Your task to perform on an android device: turn off wifi Image 0: 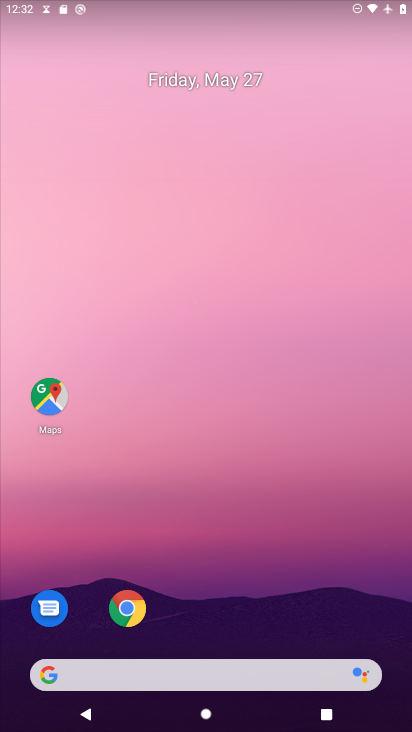
Step 0: press home button
Your task to perform on an android device: turn off wifi Image 1: 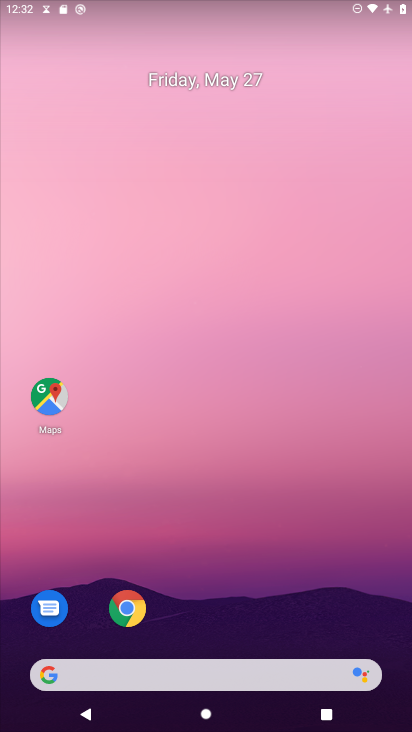
Step 1: drag from (164, 557) to (265, 263)
Your task to perform on an android device: turn off wifi Image 2: 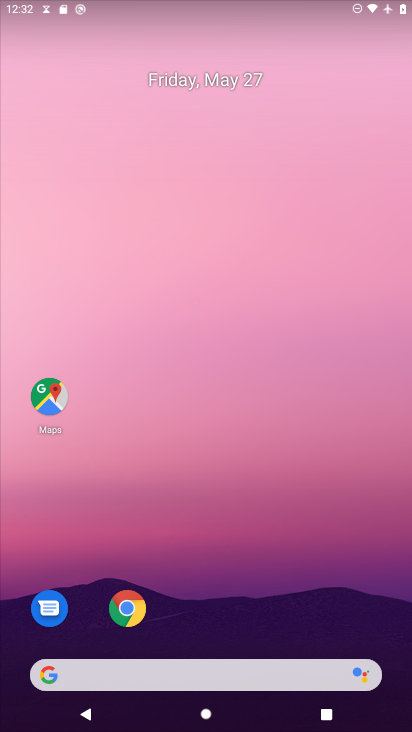
Step 2: drag from (162, 666) to (298, 127)
Your task to perform on an android device: turn off wifi Image 3: 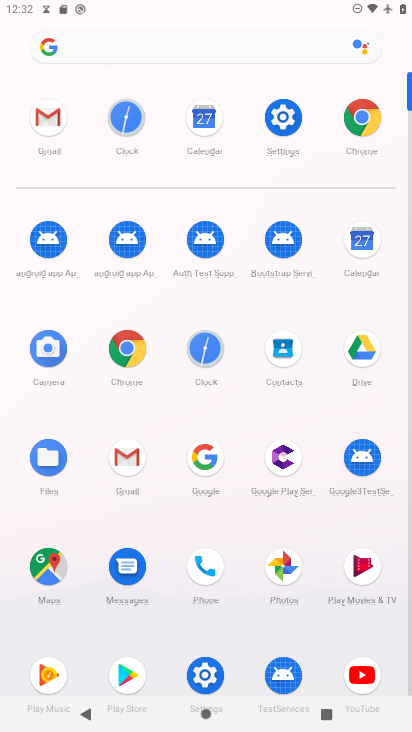
Step 3: click (291, 128)
Your task to perform on an android device: turn off wifi Image 4: 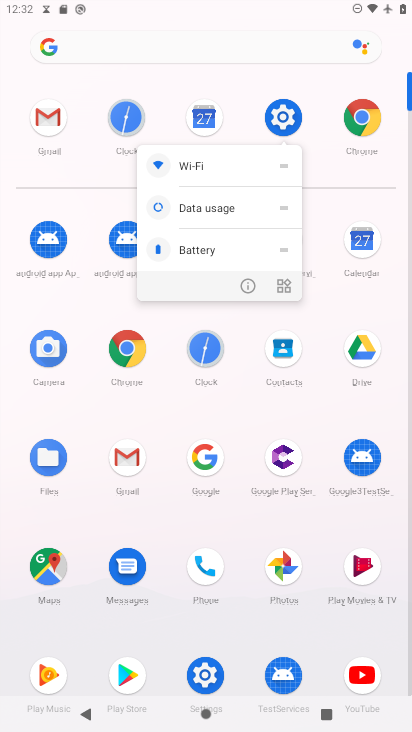
Step 4: click (287, 115)
Your task to perform on an android device: turn off wifi Image 5: 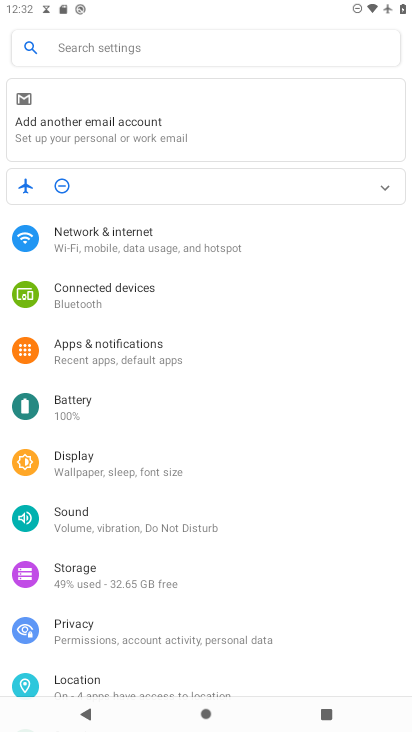
Step 5: click (170, 239)
Your task to perform on an android device: turn off wifi Image 6: 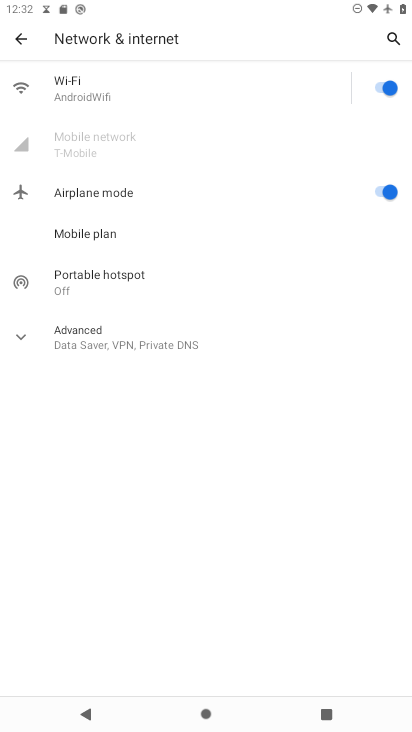
Step 6: click (381, 84)
Your task to perform on an android device: turn off wifi Image 7: 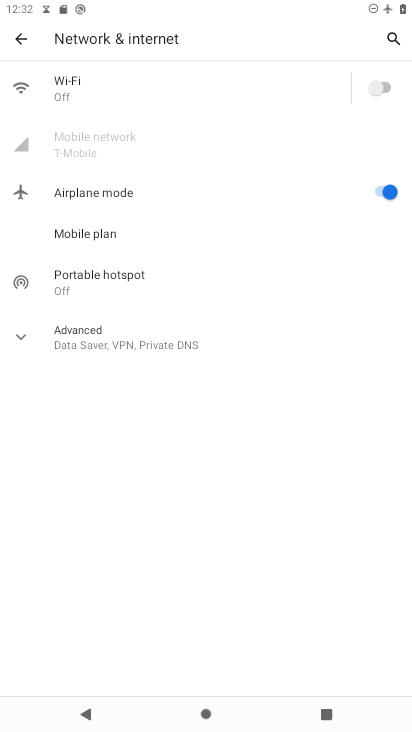
Step 7: task complete